Your task to perform on an android device: Open CNN.com Image 0: 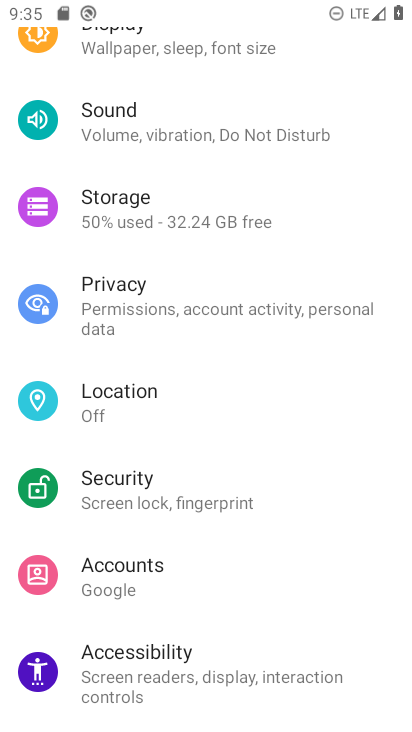
Step 0: press home button
Your task to perform on an android device: Open CNN.com Image 1: 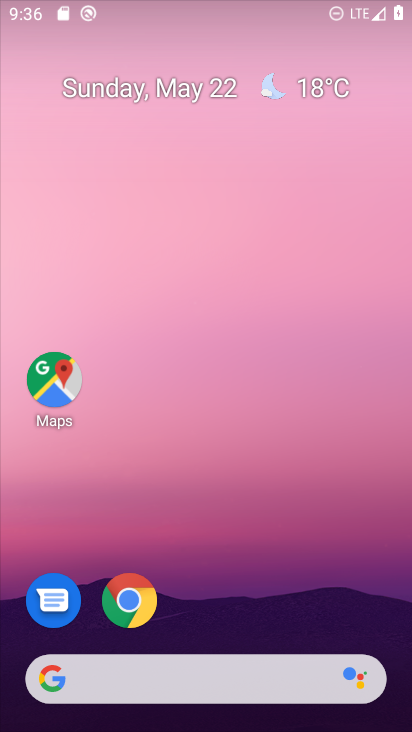
Step 1: drag from (407, 645) to (260, 17)
Your task to perform on an android device: Open CNN.com Image 2: 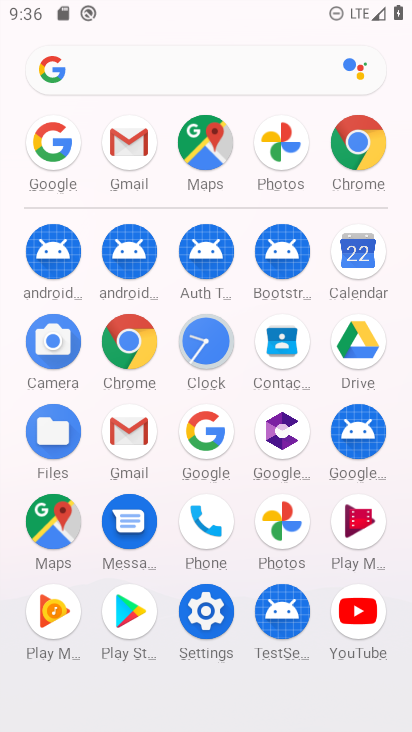
Step 2: click (194, 427)
Your task to perform on an android device: Open CNN.com Image 3: 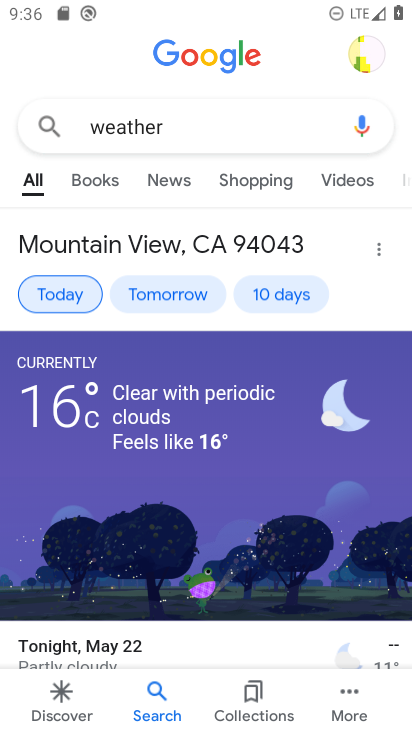
Step 3: press back button
Your task to perform on an android device: Open CNN.com Image 4: 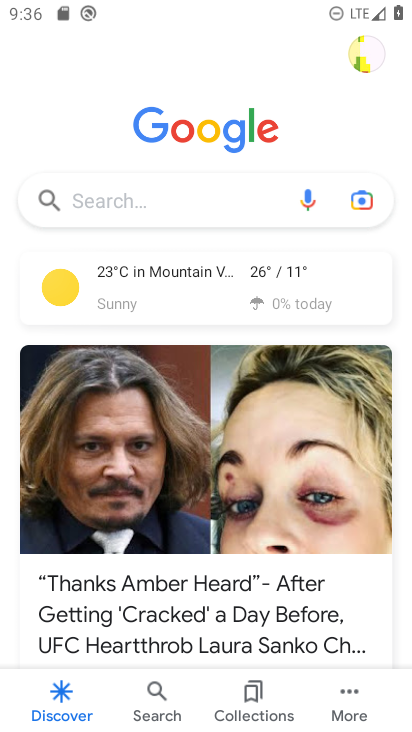
Step 4: click (161, 206)
Your task to perform on an android device: Open CNN.com Image 5: 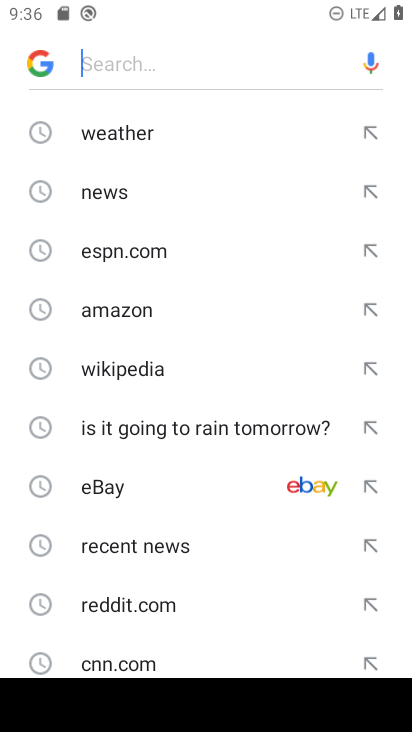
Step 5: click (138, 660)
Your task to perform on an android device: Open CNN.com Image 6: 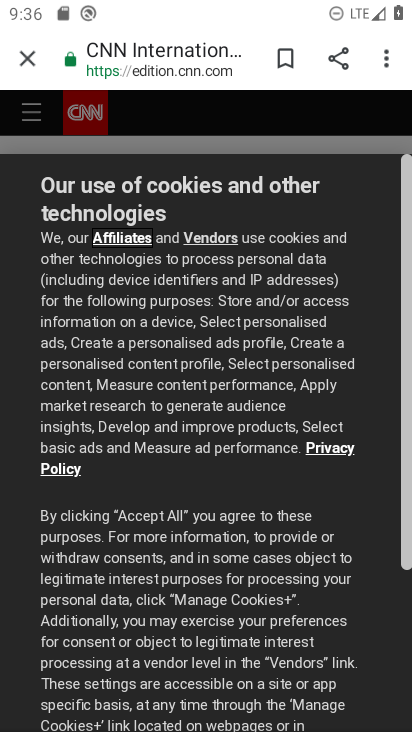
Step 6: task complete